Your task to perform on an android device: Open eBay Image 0: 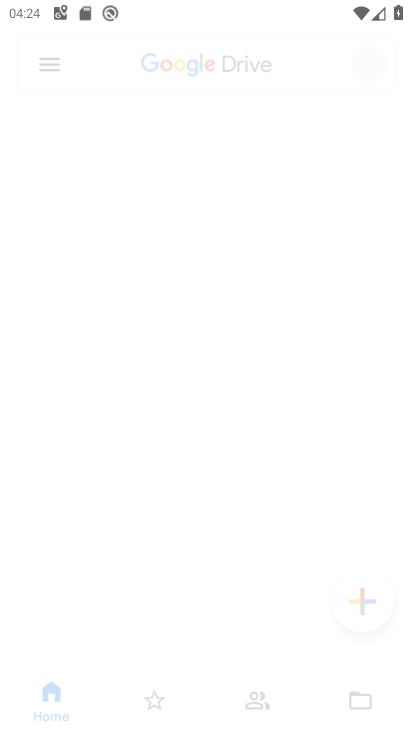
Step 0: drag from (282, 545) to (253, 107)
Your task to perform on an android device: Open eBay Image 1: 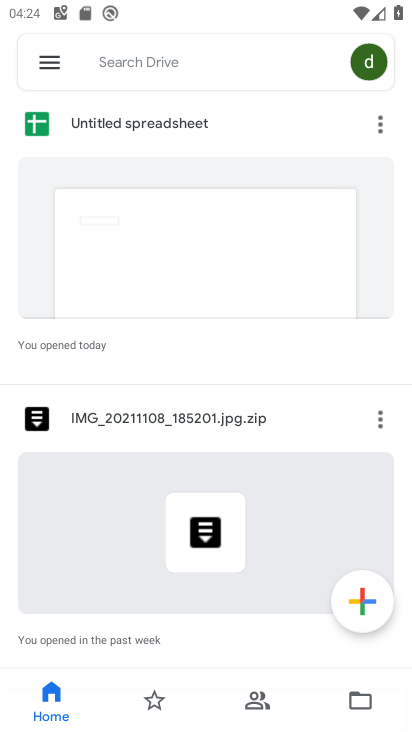
Step 1: press home button
Your task to perform on an android device: Open eBay Image 2: 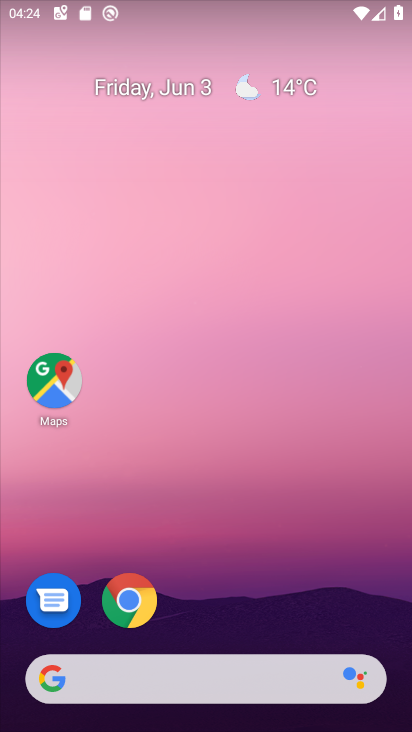
Step 2: click (129, 595)
Your task to perform on an android device: Open eBay Image 3: 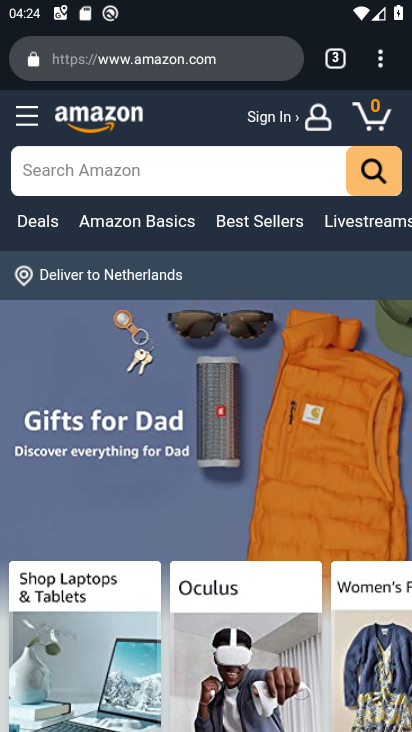
Step 3: click (143, 57)
Your task to perform on an android device: Open eBay Image 4: 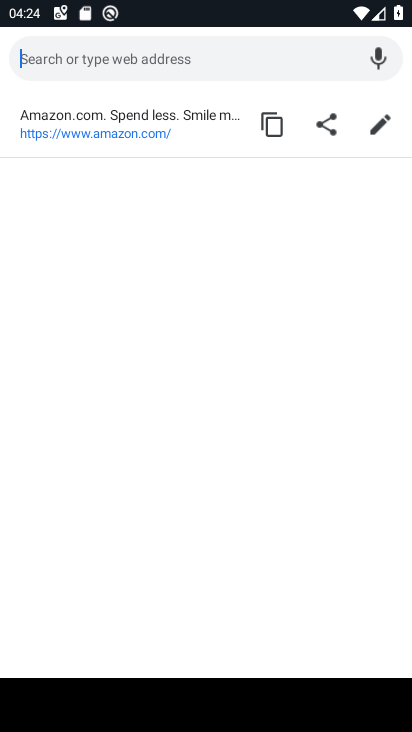
Step 4: type "ebay"
Your task to perform on an android device: Open eBay Image 5: 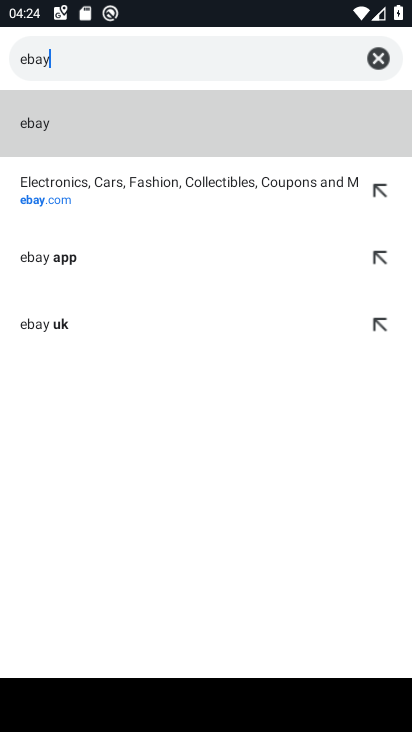
Step 5: click (63, 196)
Your task to perform on an android device: Open eBay Image 6: 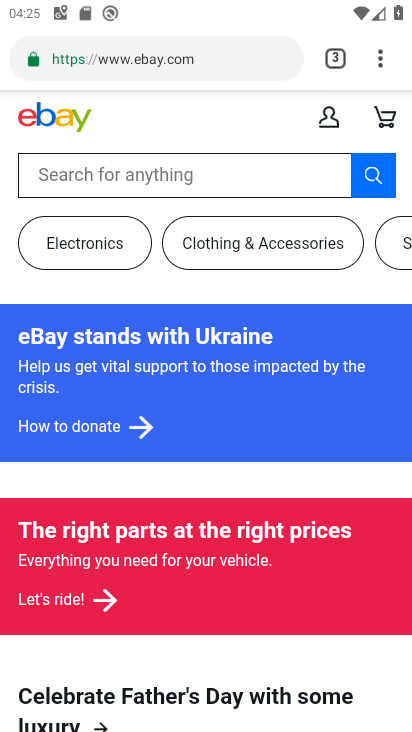
Step 6: task complete